Your task to perform on an android device: Look up the new steph curry shoes Image 0: 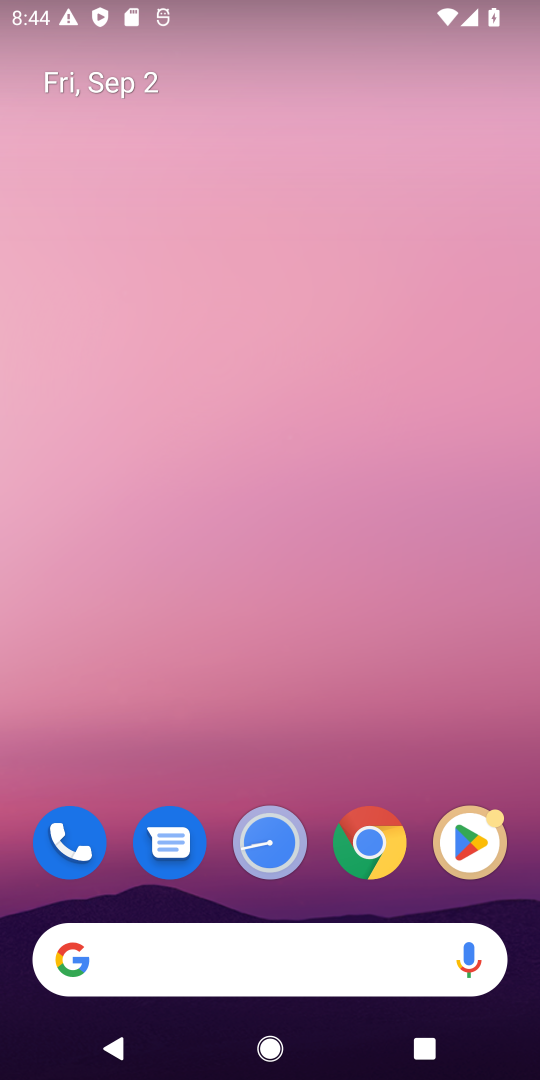
Step 0: drag from (358, 761) to (301, 2)
Your task to perform on an android device: Look up the new steph curry shoes Image 1: 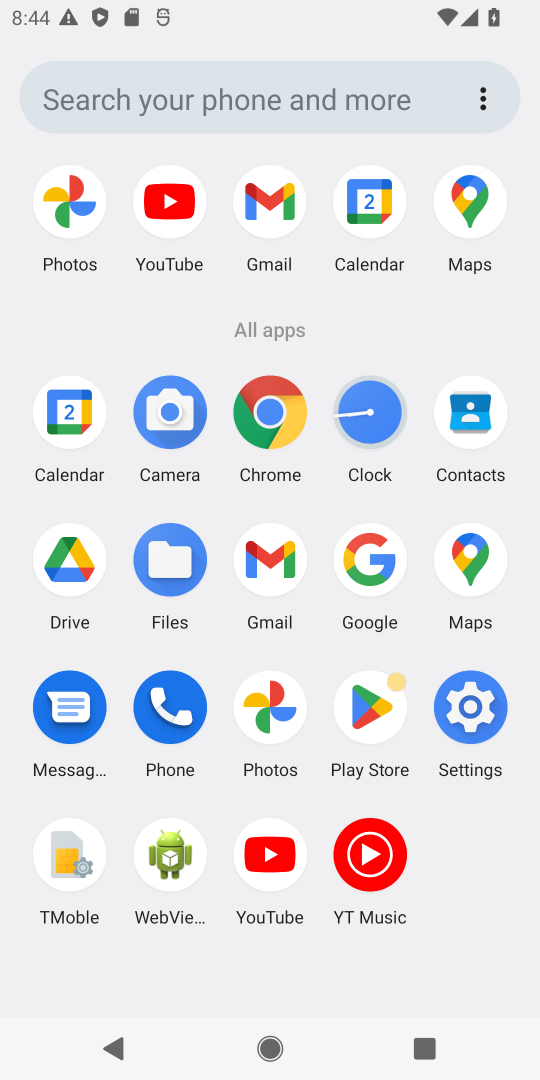
Step 1: click (272, 417)
Your task to perform on an android device: Look up the new steph curry shoes Image 2: 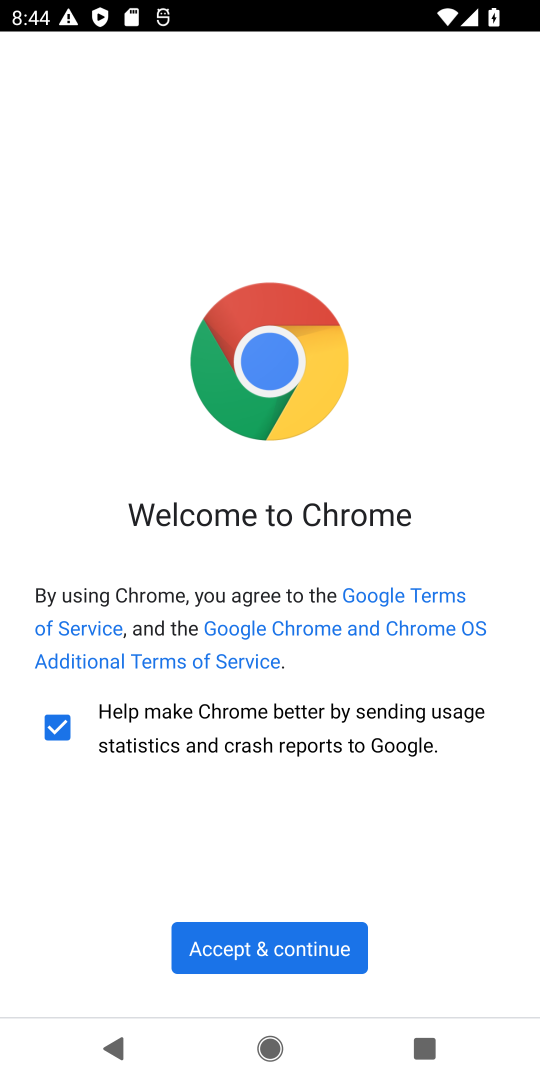
Step 2: click (210, 947)
Your task to perform on an android device: Look up the new steph curry shoes Image 3: 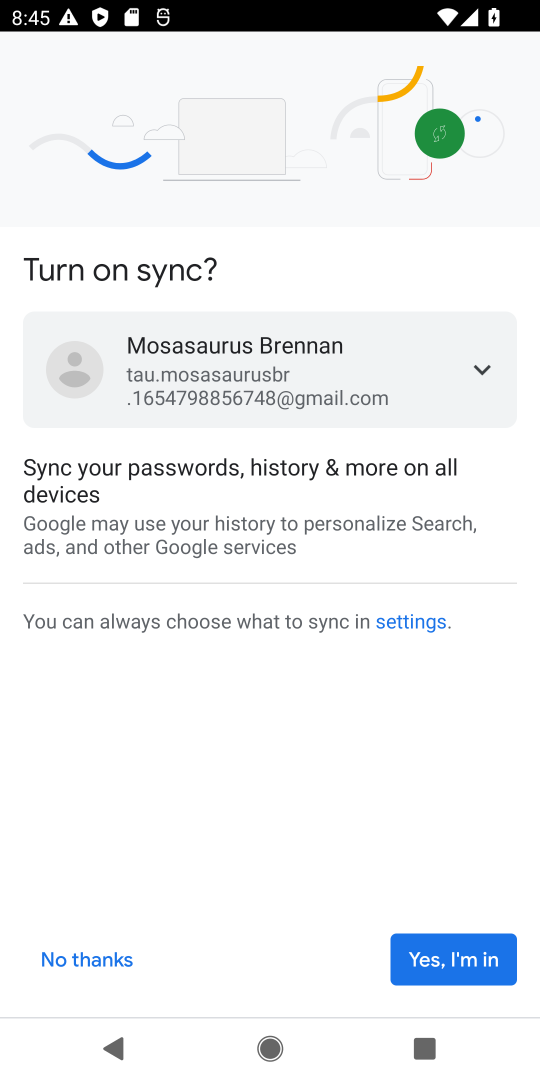
Step 3: click (482, 969)
Your task to perform on an android device: Look up the new steph curry shoes Image 4: 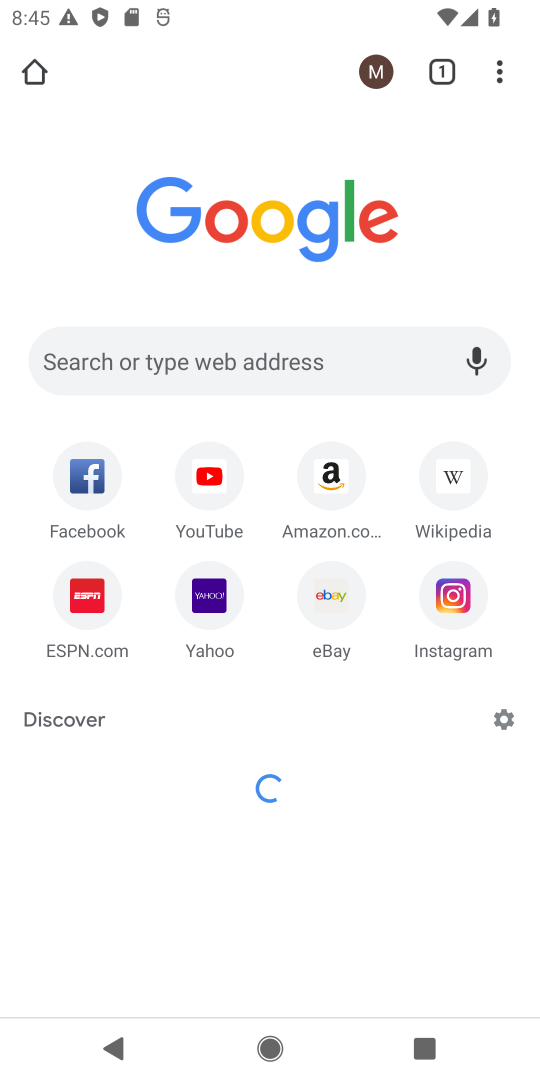
Step 4: click (263, 376)
Your task to perform on an android device: Look up the new steph curry shoes Image 5: 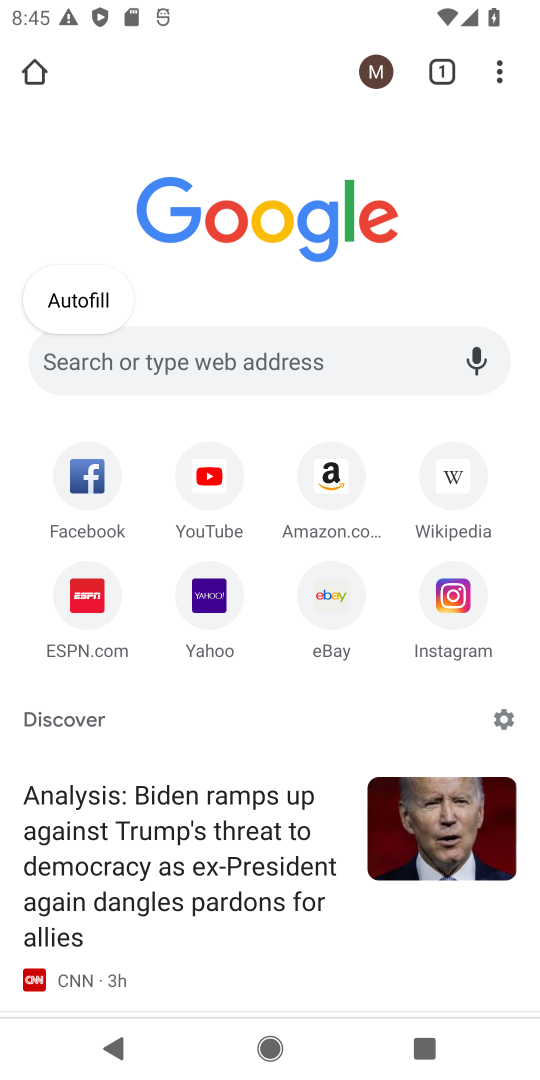
Step 5: click (202, 362)
Your task to perform on an android device: Look up the new steph curry shoes Image 6: 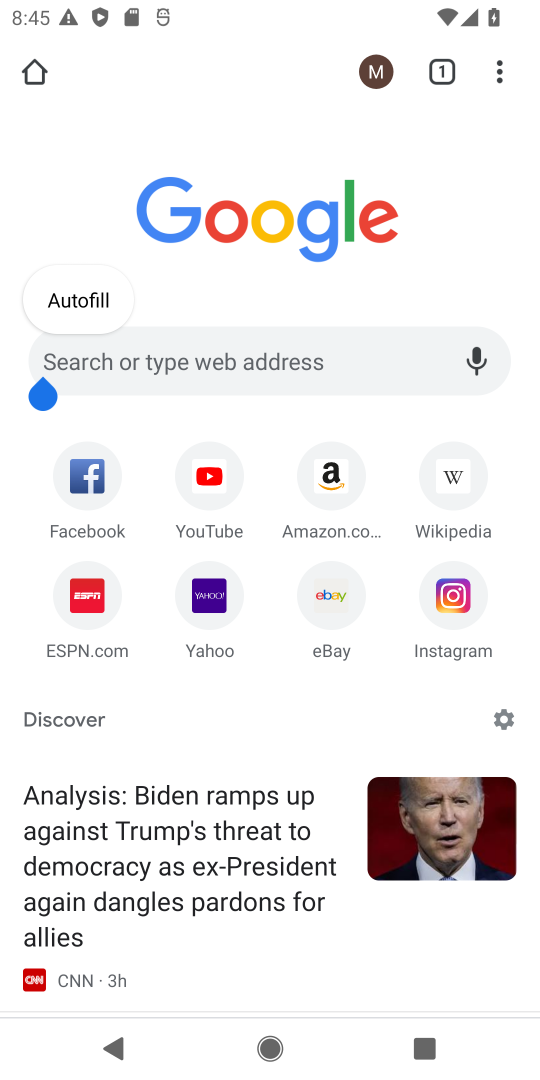
Step 6: press enter
Your task to perform on an android device: Look up the new steph curry shoes Image 7: 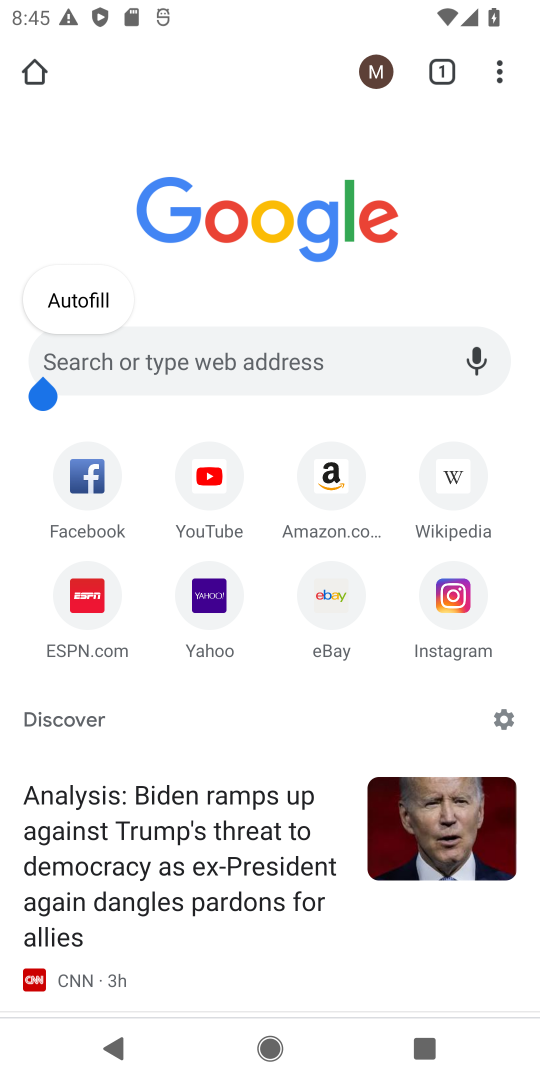
Step 7: type "new steph curry shoes"
Your task to perform on an android device: Look up the new steph curry shoes Image 8: 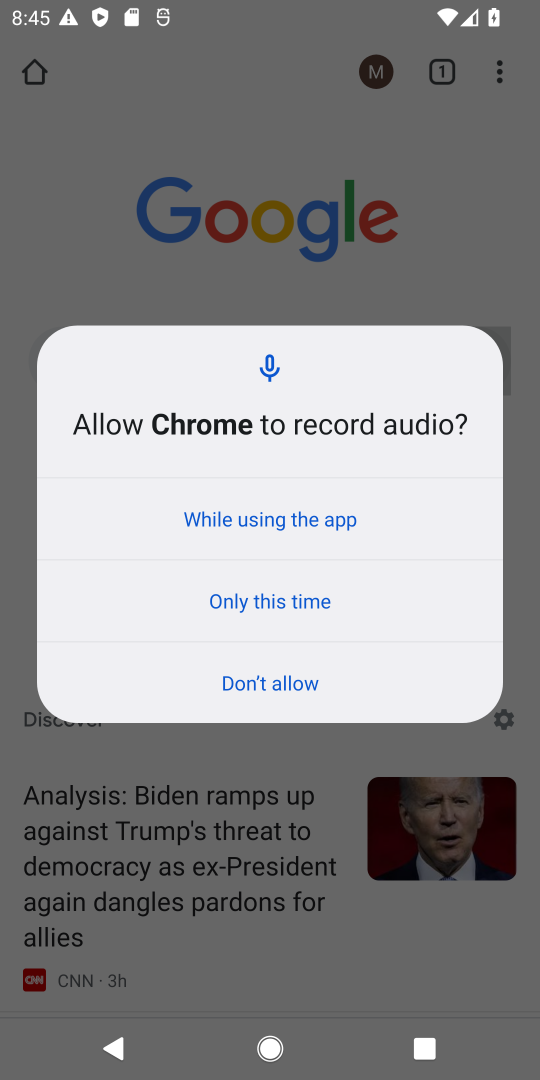
Step 8: click (268, 692)
Your task to perform on an android device: Look up the new steph curry shoes Image 9: 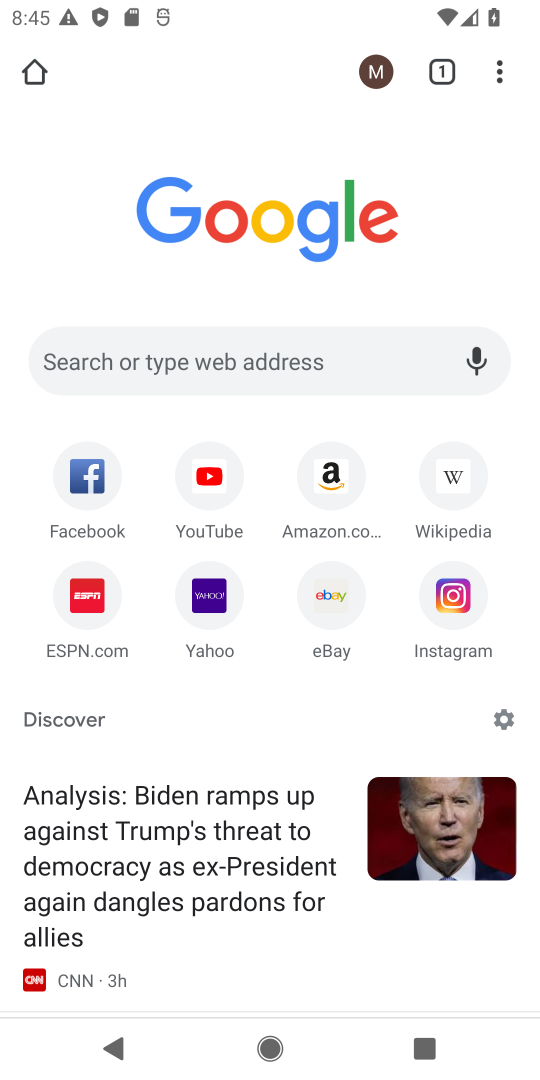
Step 9: click (145, 371)
Your task to perform on an android device: Look up the new steph curry shoes Image 10: 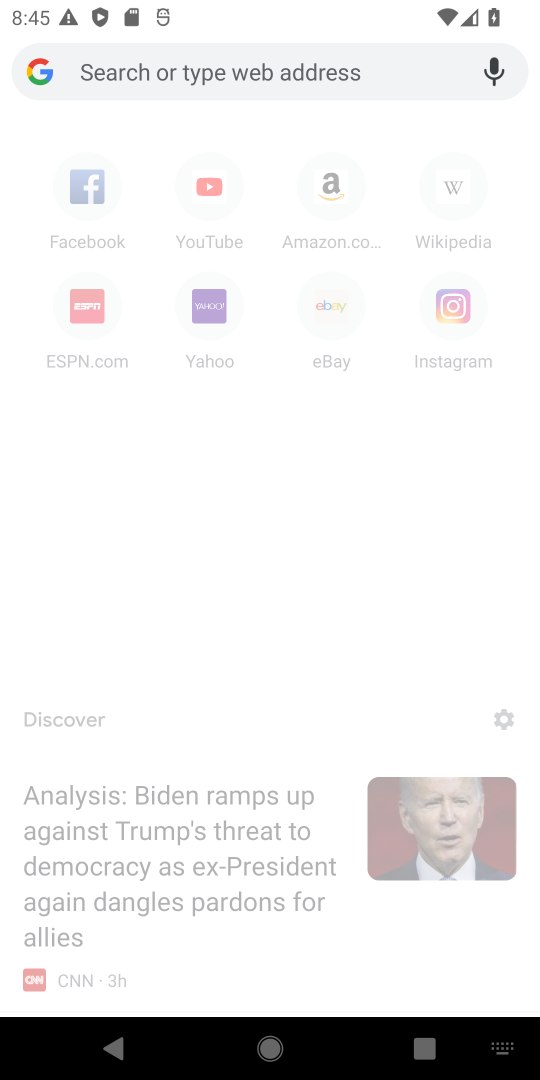
Step 10: type "new steph curry shoes"
Your task to perform on an android device: Look up the new steph curry shoes Image 11: 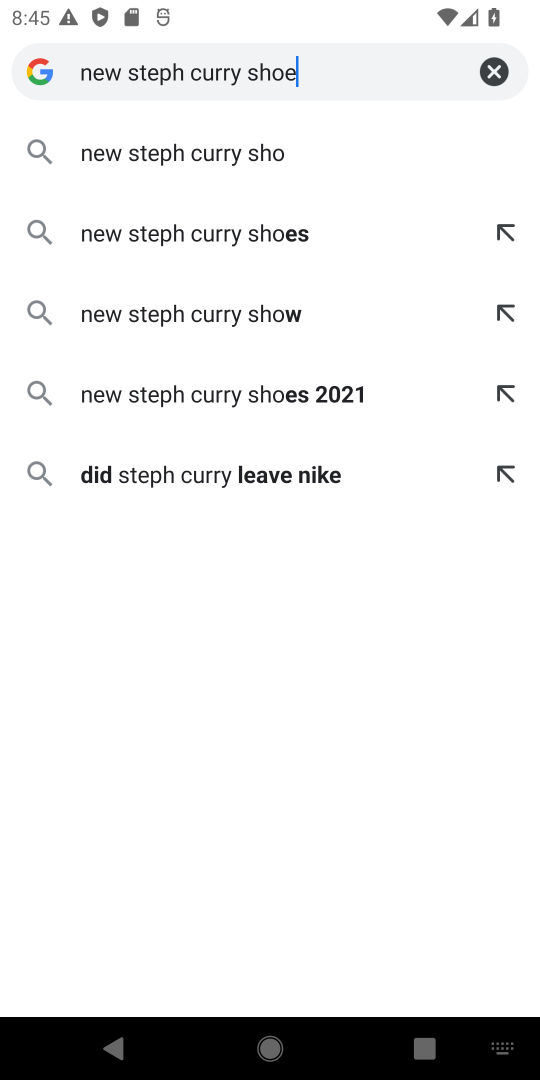
Step 11: press enter
Your task to perform on an android device: Look up the new steph curry shoes Image 12: 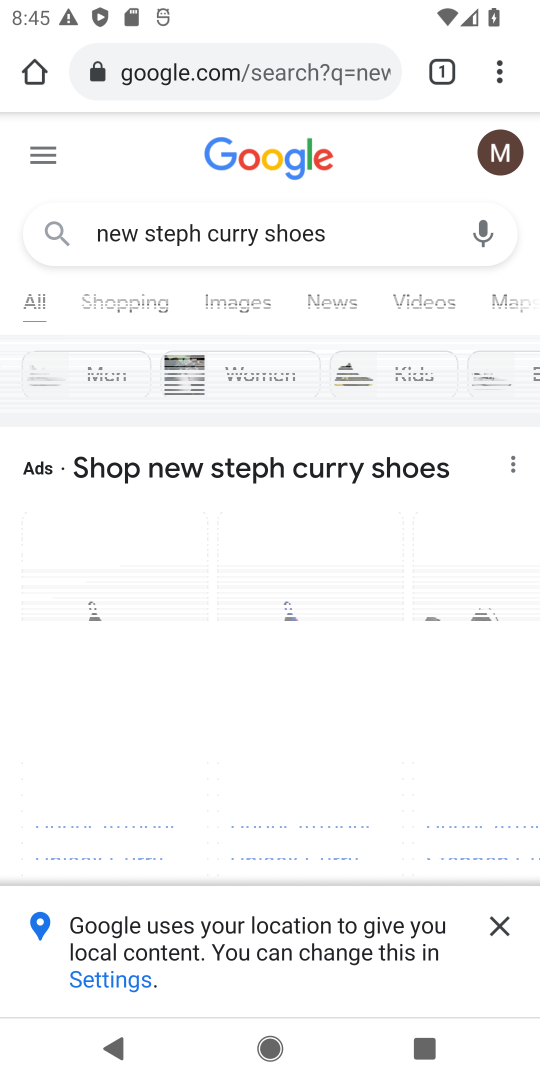
Step 12: task complete